Your task to perform on an android device: change the upload size in google photos Image 0: 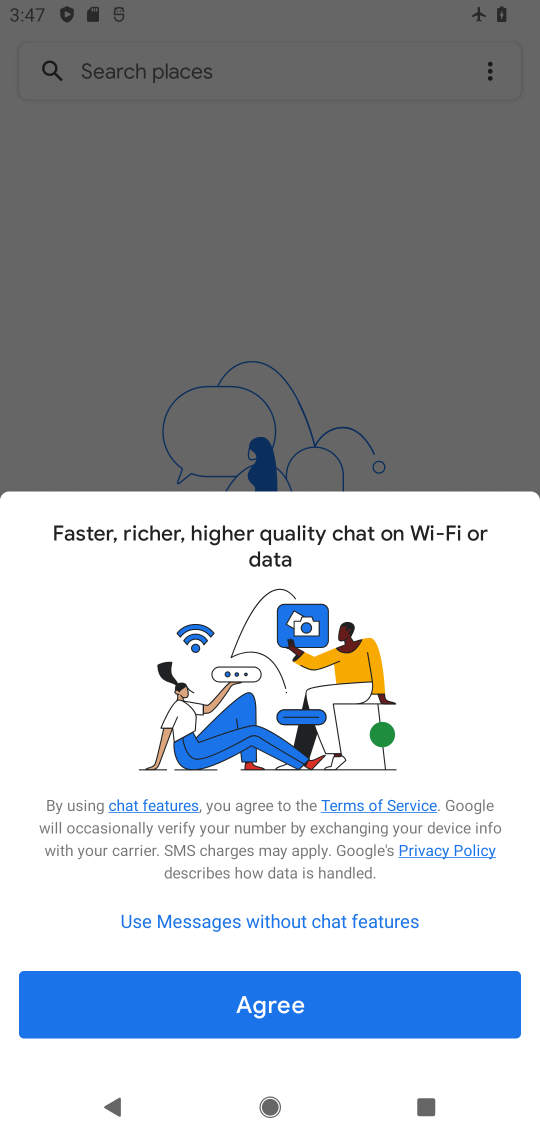
Step 0: press home button
Your task to perform on an android device: change the upload size in google photos Image 1: 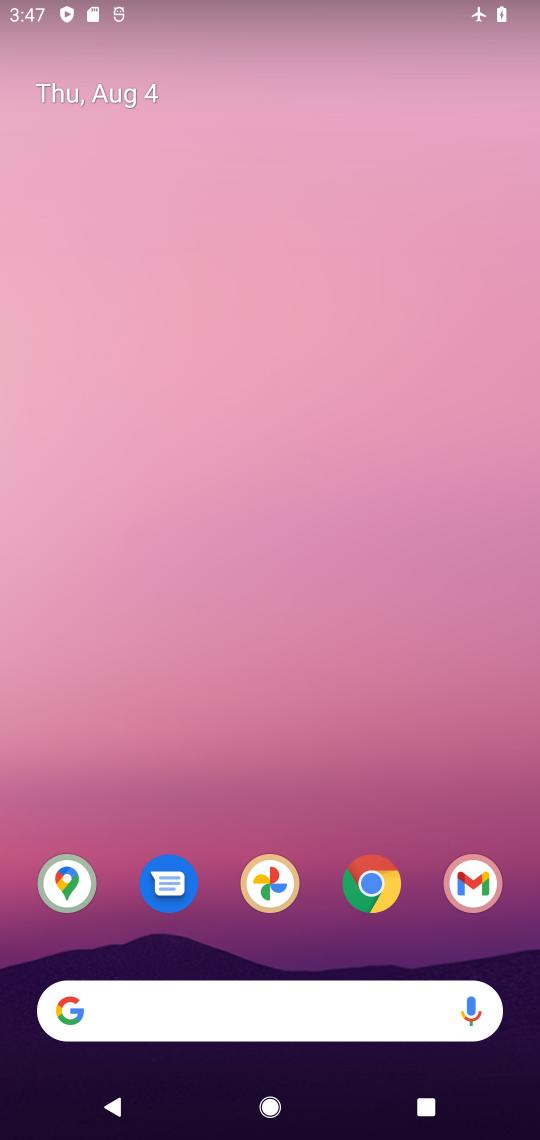
Step 1: drag from (503, 972) to (304, 37)
Your task to perform on an android device: change the upload size in google photos Image 2: 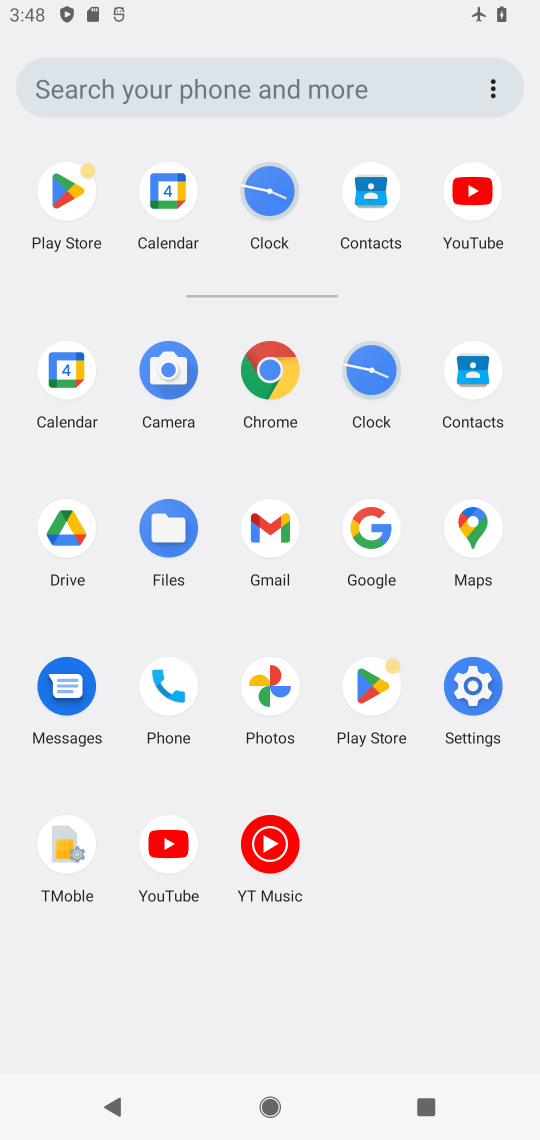
Step 2: click (268, 678)
Your task to perform on an android device: change the upload size in google photos Image 3: 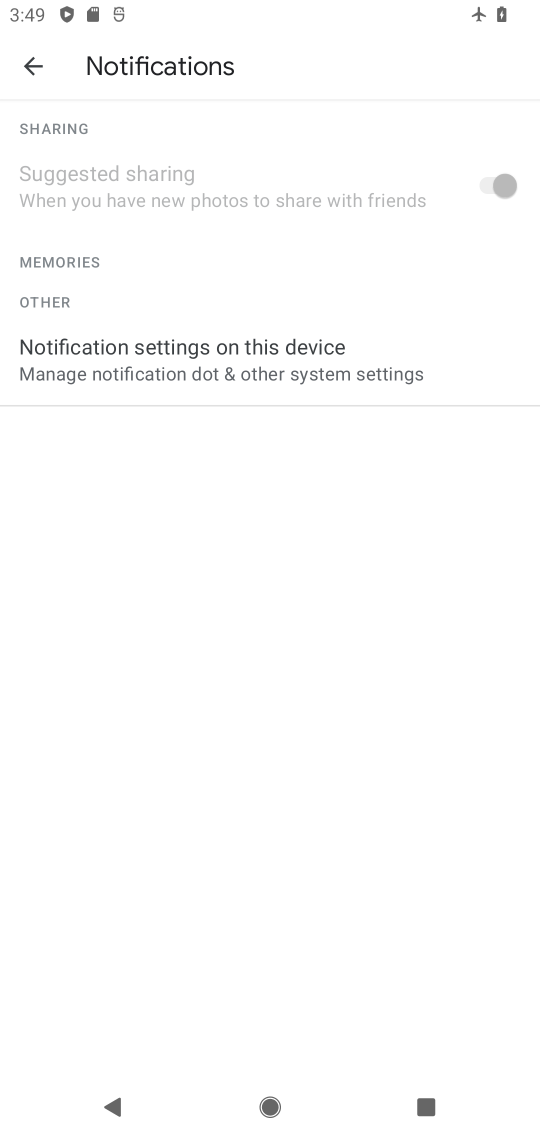
Step 3: task complete